Your task to perform on an android device: Open Reddit.com Image 0: 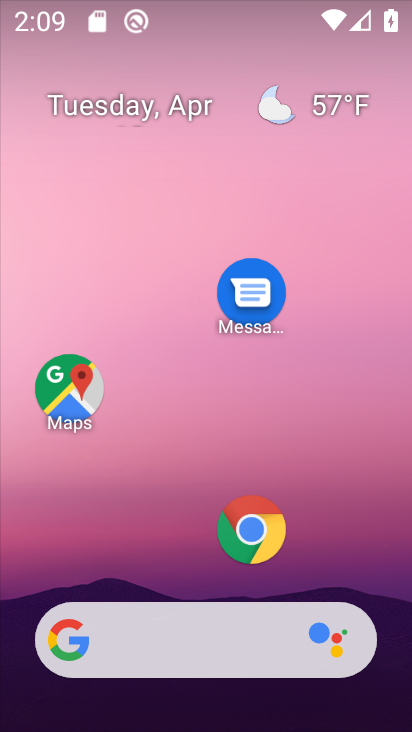
Step 0: drag from (174, 514) to (167, 194)
Your task to perform on an android device: Open Reddit.com Image 1: 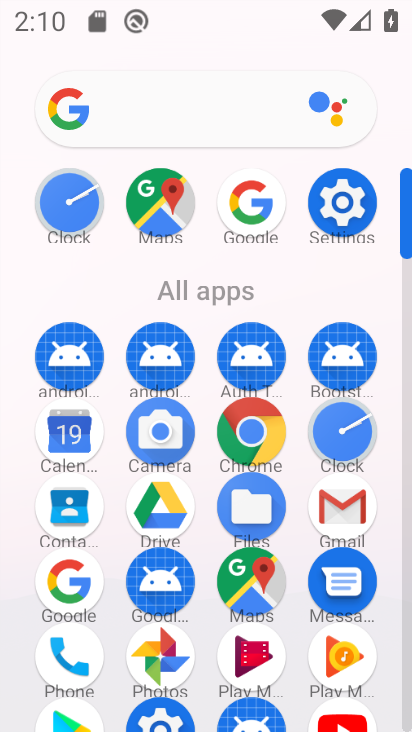
Step 1: click (254, 199)
Your task to perform on an android device: Open Reddit.com Image 2: 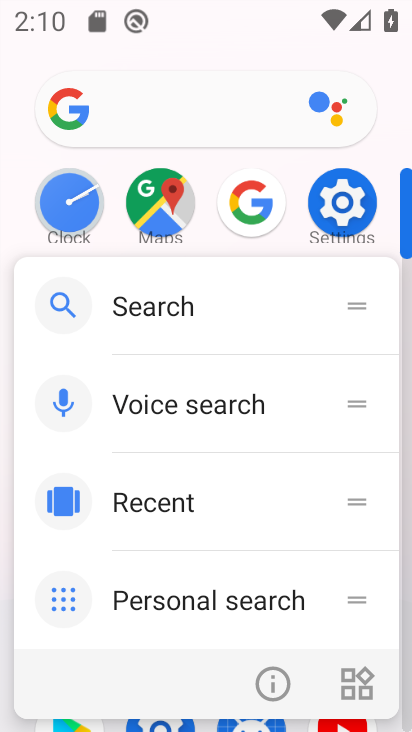
Step 2: click (250, 193)
Your task to perform on an android device: Open Reddit.com Image 3: 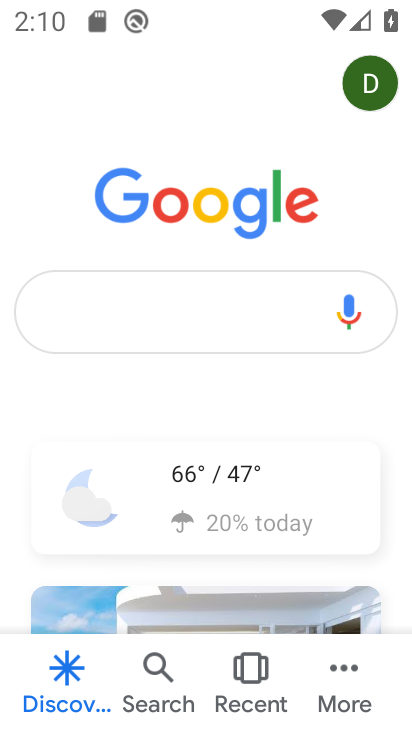
Step 3: click (169, 314)
Your task to perform on an android device: Open Reddit.com Image 4: 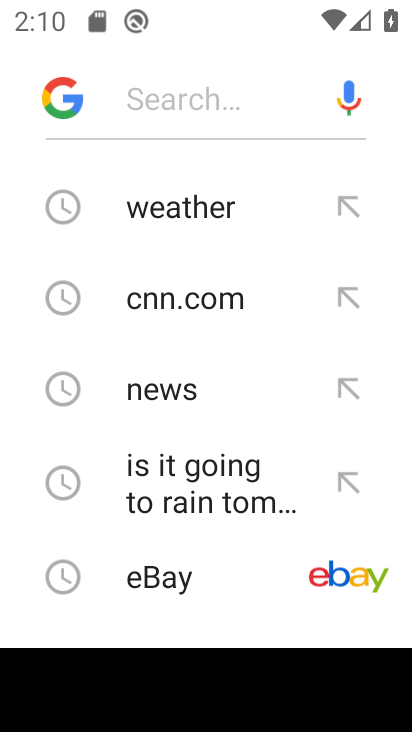
Step 4: type "reddit.com"
Your task to perform on an android device: Open Reddit.com Image 5: 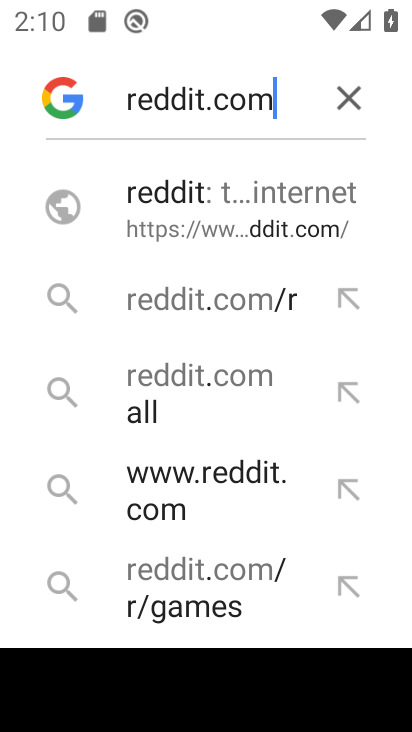
Step 5: click (203, 489)
Your task to perform on an android device: Open Reddit.com Image 6: 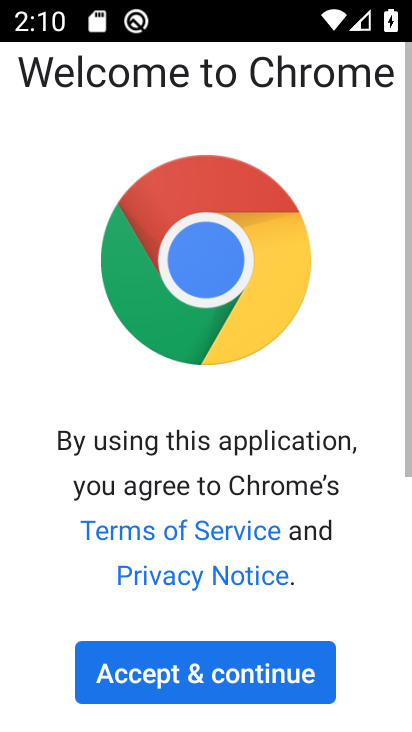
Step 6: click (222, 684)
Your task to perform on an android device: Open Reddit.com Image 7: 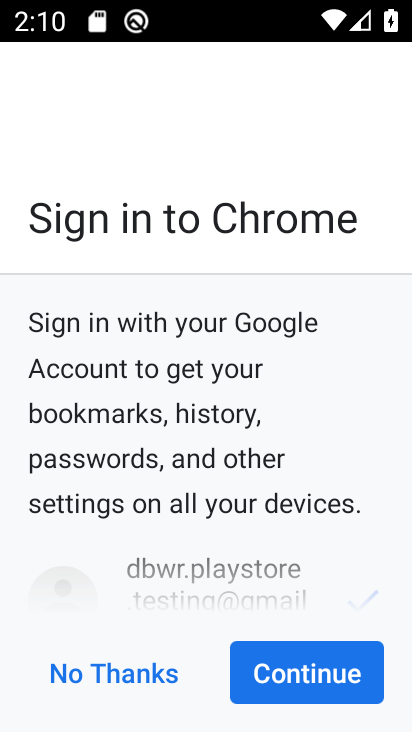
Step 7: click (270, 680)
Your task to perform on an android device: Open Reddit.com Image 8: 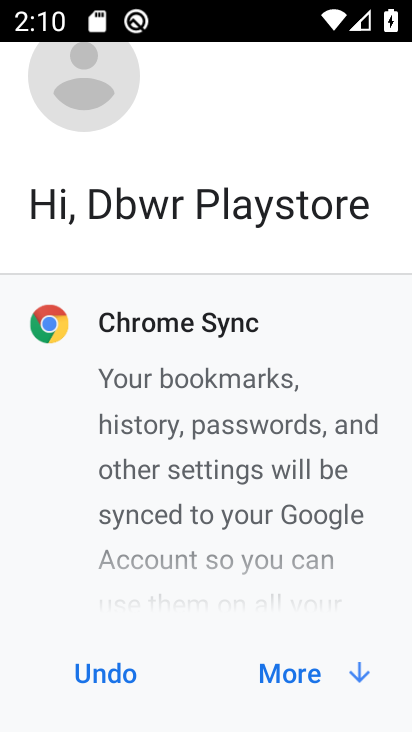
Step 8: click (288, 674)
Your task to perform on an android device: Open Reddit.com Image 9: 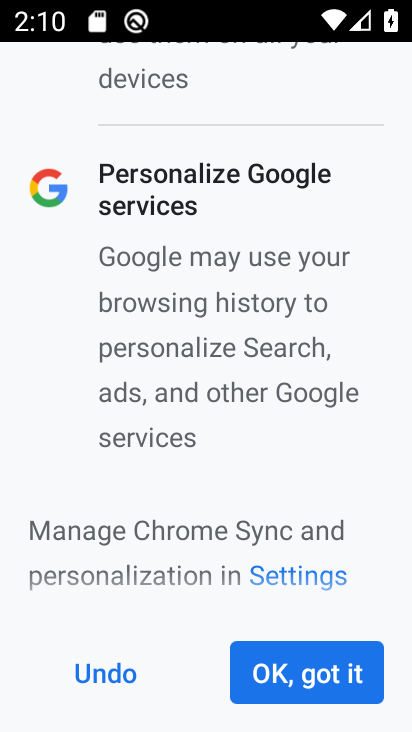
Step 9: click (288, 674)
Your task to perform on an android device: Open Reddit.com Image 10: 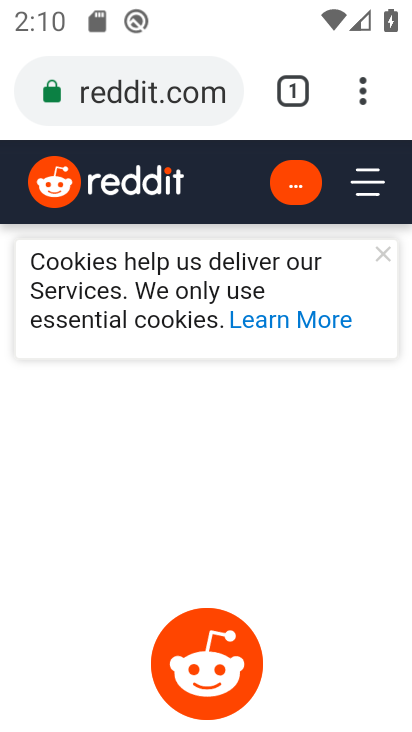
Step 10: task complete